Your task to perform on an android device: Open ESPN.com Image 0: 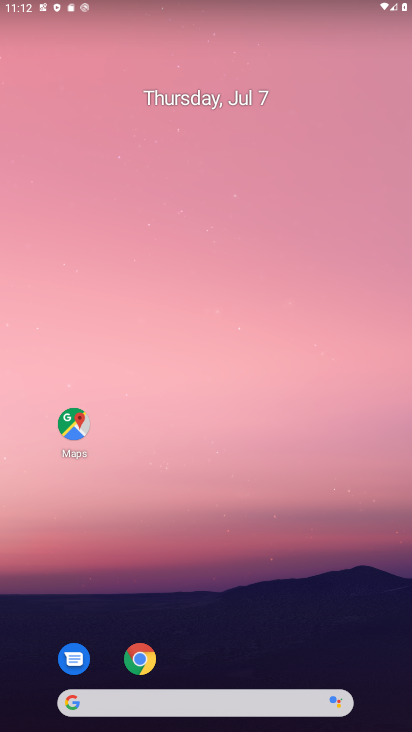
Step 0: press home button
Your task to perform on an android device: Open ESPN.com Image 1: 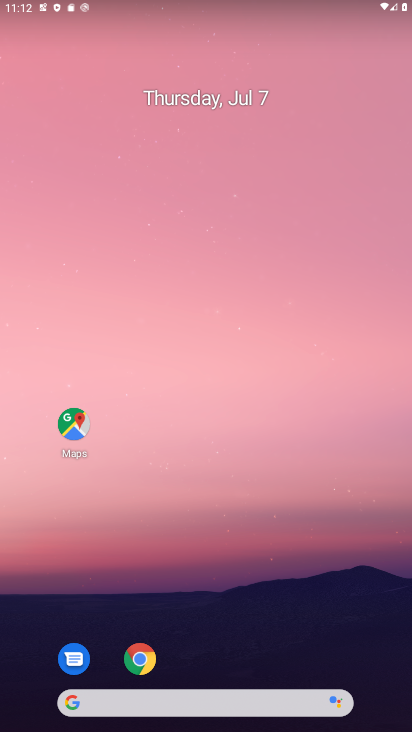
Step 1: drag from (210, 672) to (245, 25)
Your task to perform on an android device: Open ESPN.com Image 2: 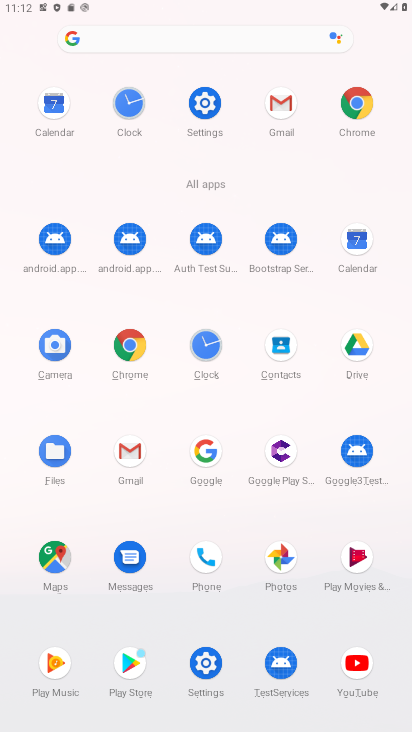
Step 2: click (354, 100)
Your task to perform on an android device: Open ESPN.com Image 3: 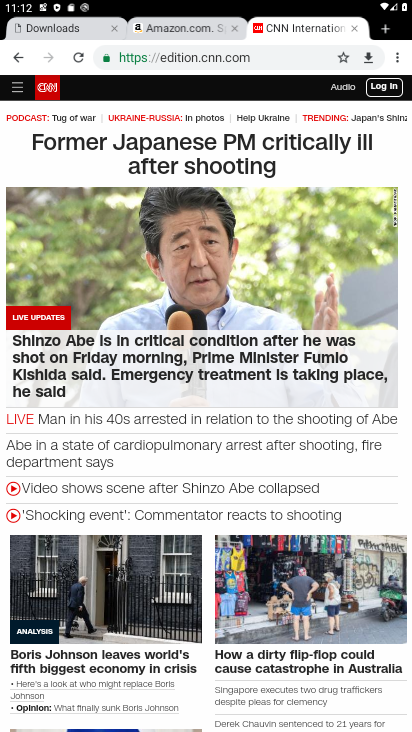
Step 3: drag from (187, 142) to (201, 562)
Your task to perform on an android device: Open ESPN.com Image 4: 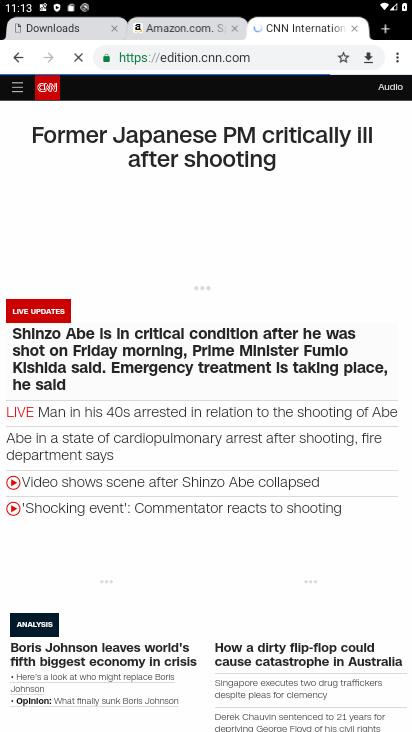
Step 4: click (112, 24)
Your task to perform on an android device: Open ESPN.com Image 5: 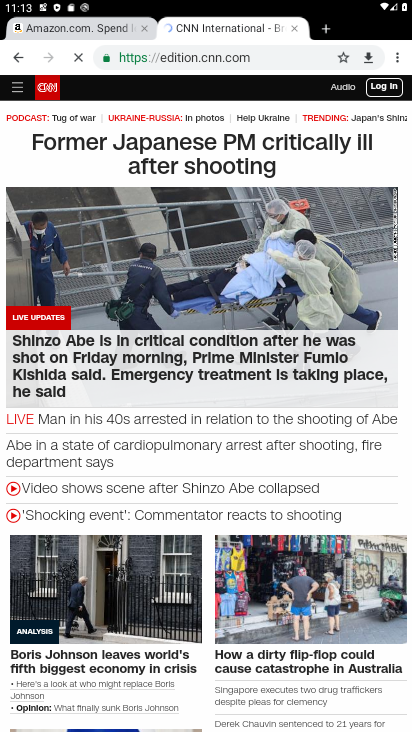
Step 5: task complete